Your task to perform on an android device: see tabs open on other devices in the chrome app Image 0: 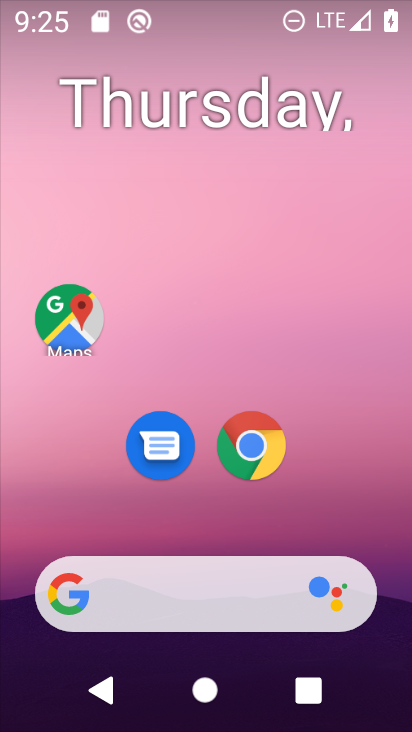
Step 0: drag from (401, 611) to (374, 420)
Your task to perform on an android device: see tabs open on other devices in the chrome app Image 1: 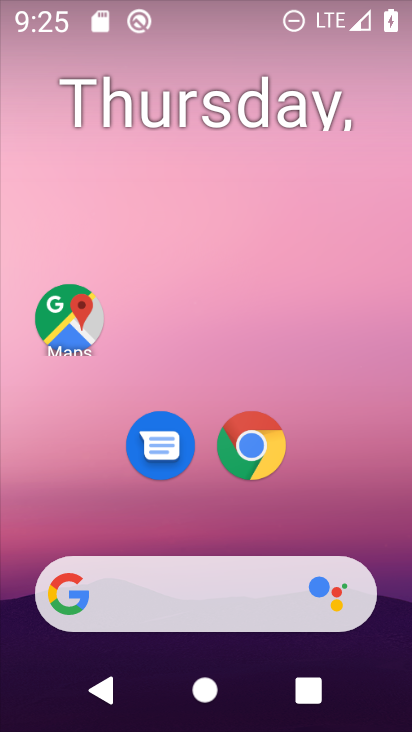
Step 1: click (275, 33)
Your task to perform on an android device: see tabs open on other devices in the chrome app Image 2: 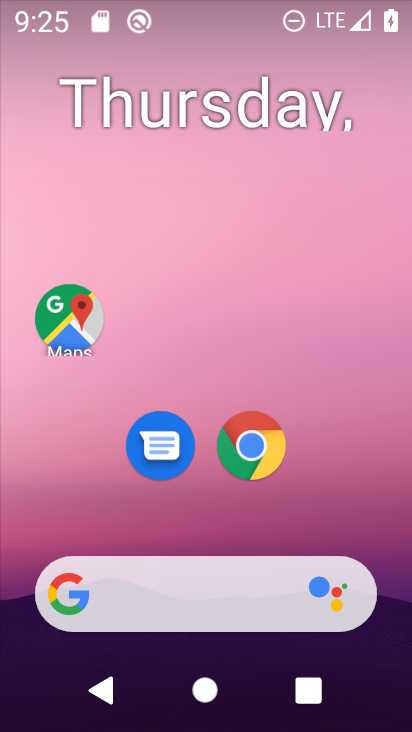
Step 2: drag from (386, 623) to (275, 0)
Your task to perform on an android device: see tabs open on other devices in the chrome app Image 3: 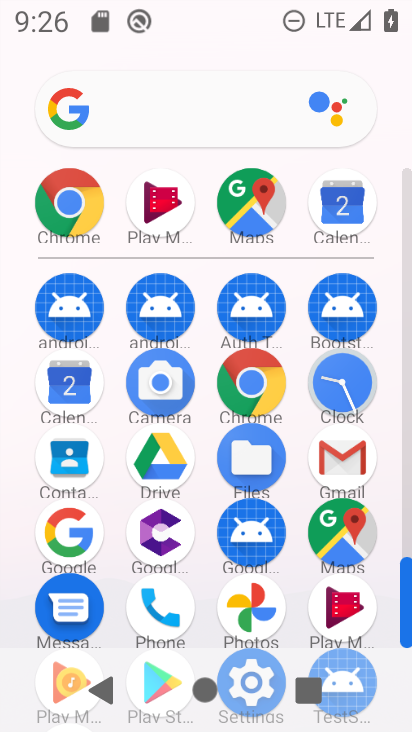
Step 3: click (259, 383)
Your task to perform on an android device: see tabs open on other devices in the chrome app Image 4: 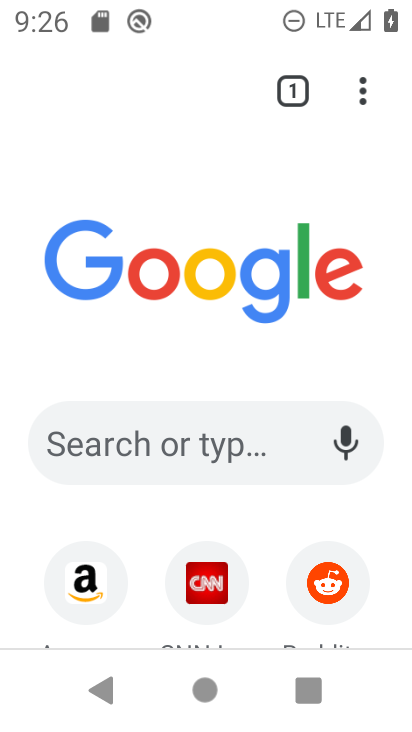
Step 4: task complete